Your task to perform on an android device: snooze an email in the gmail app Image 0: 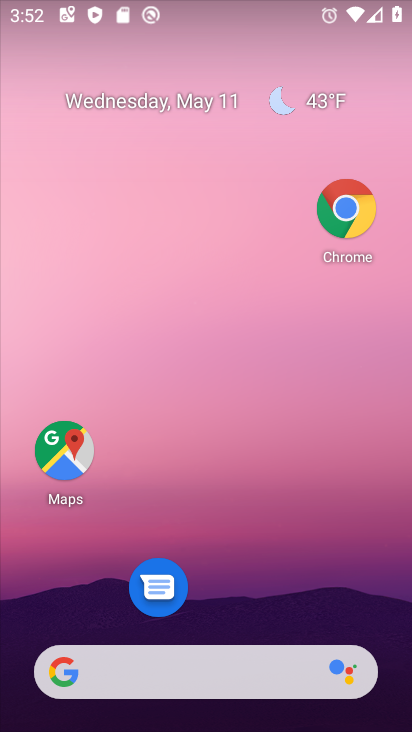
Step 0: drag from (265, 534) to (288, 134)
Your task to perform on an android device: snooze an email in the gmail app Image 1: 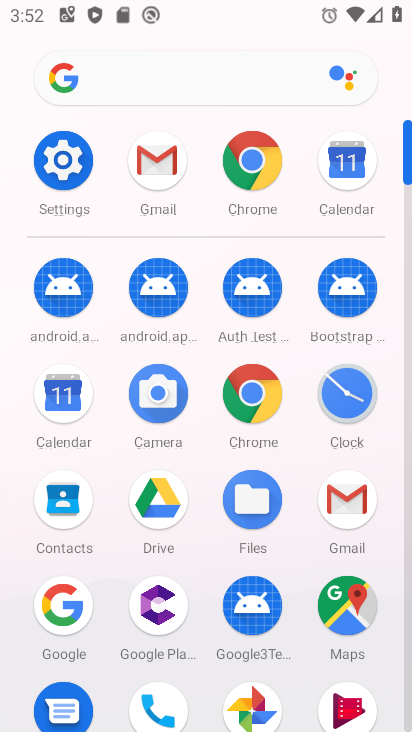
Step 1: click (350, 507)
Your task to perform on an android device: snooze an email in the gmail app Image 2: 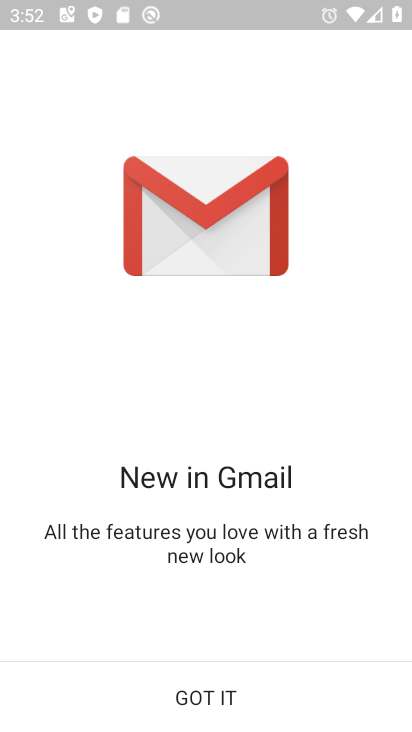
Step 2: task complete